Your task to perform on an android device: remove spam from my inbox in the gmail app Image 0: 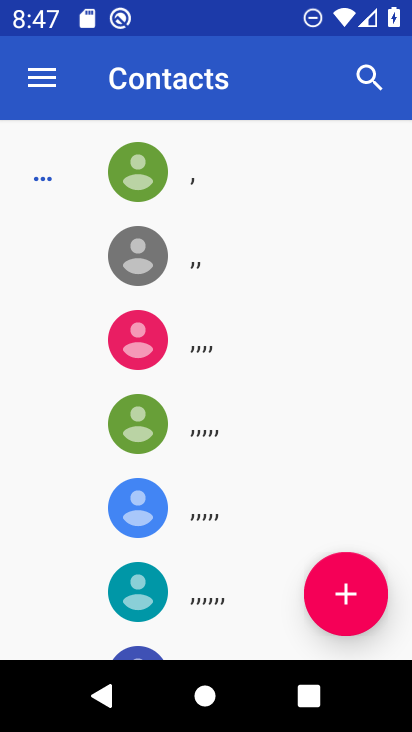
Step 0: press home button
Your task to perform on an android device: remove spam from my inbox in the gmail app Image 1: 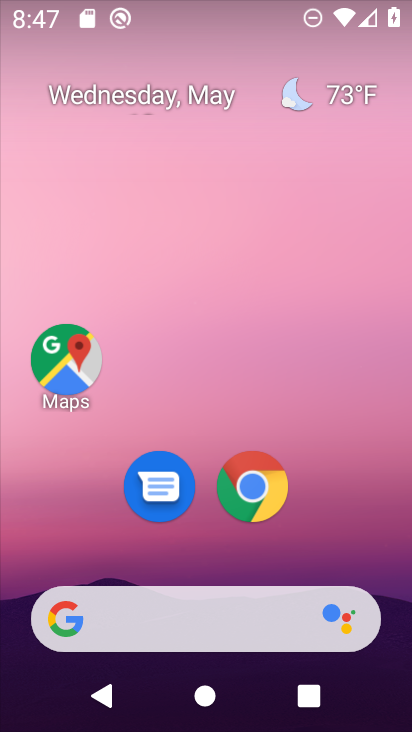
Step 1: drag from (398, 609) to (333, 124)
Your task to perform on an android device: remove spam from my inbox in the gmail app Image 2: 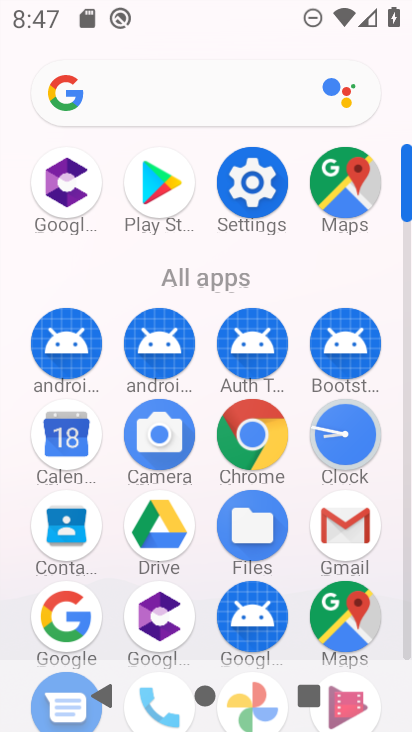
Step 2: click (410, 639)
Your task to perform on an android device: remove spam from my inbox in the gmail app Image 3: 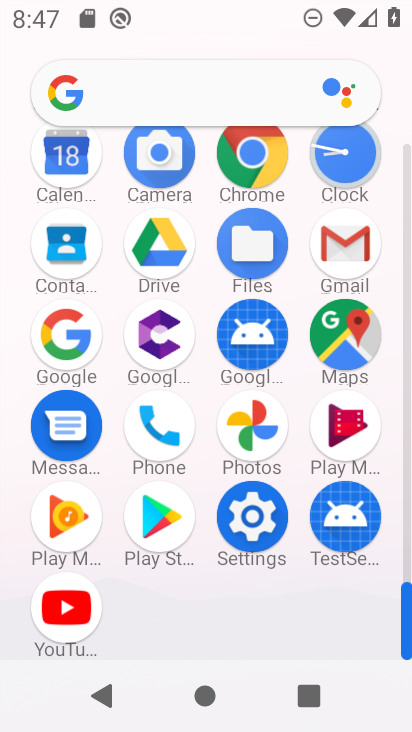
Step 3: click (342, 241)
Your task to perform on an android device: remove spam from my inbox in the gmail app Image 4: 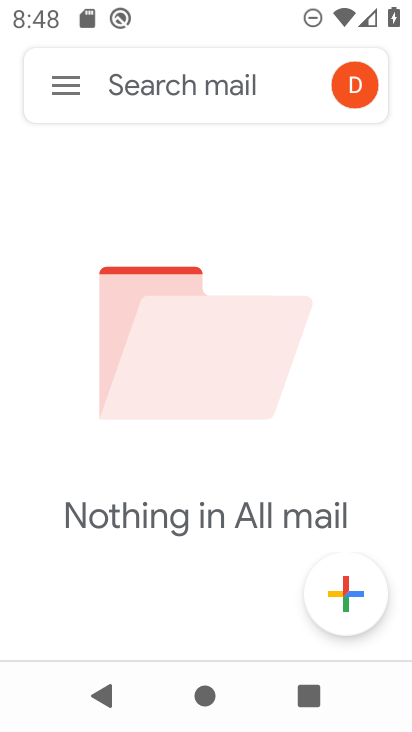
Step 4: click (60, 75)
Your task to perform on an android device: remove spam from my inbox in the gmail app Image 5: 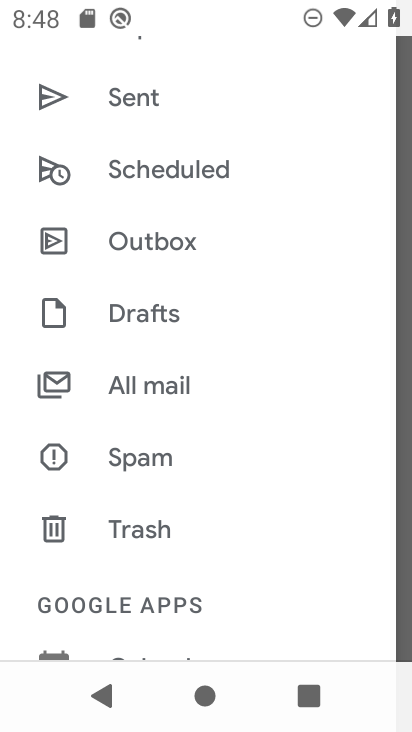
Step 5: click (139, 455)
Your task to perform on an android device: remove spam from my inbox in the gmail app Image 6: 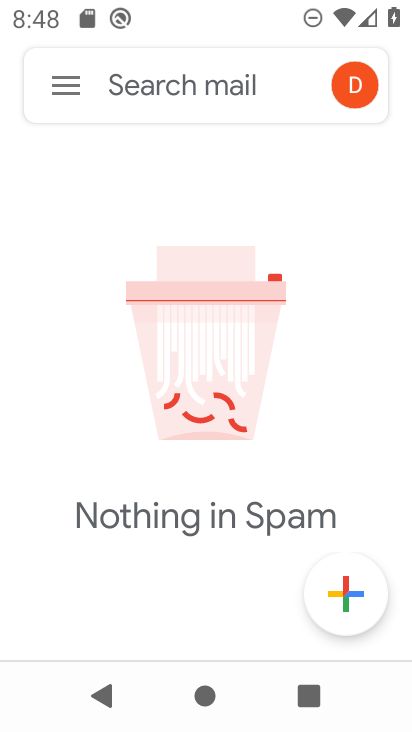
Step 6: task complete